Your task to perform on an android device: Search for "razer naga" on amazon, select the first entry, add it to the cart, then select checkout. Image 0: 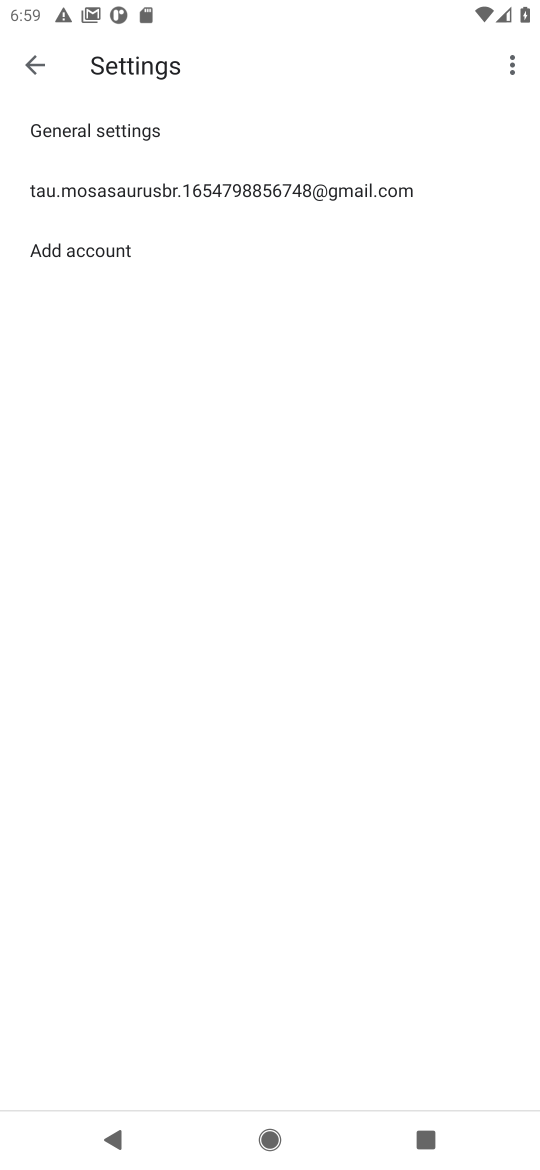
Step 0: press home button
Your task to perform on an android device: Search for "razer naga" on amazon, select the first entry, add it to the cart, then select checkout. Image 1: 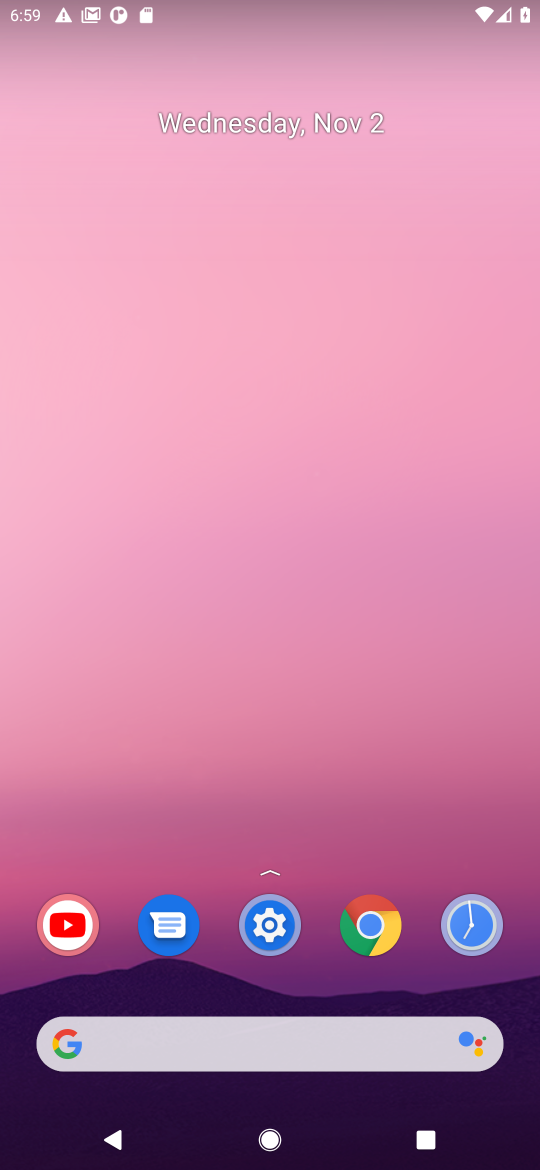
Step 1: drag from (432, 783) to (470, 31)
Your task to perform on an android device: Search for "razer naga" on amazon, select the first entry, add it to the cart, then select checkout. Image 2: 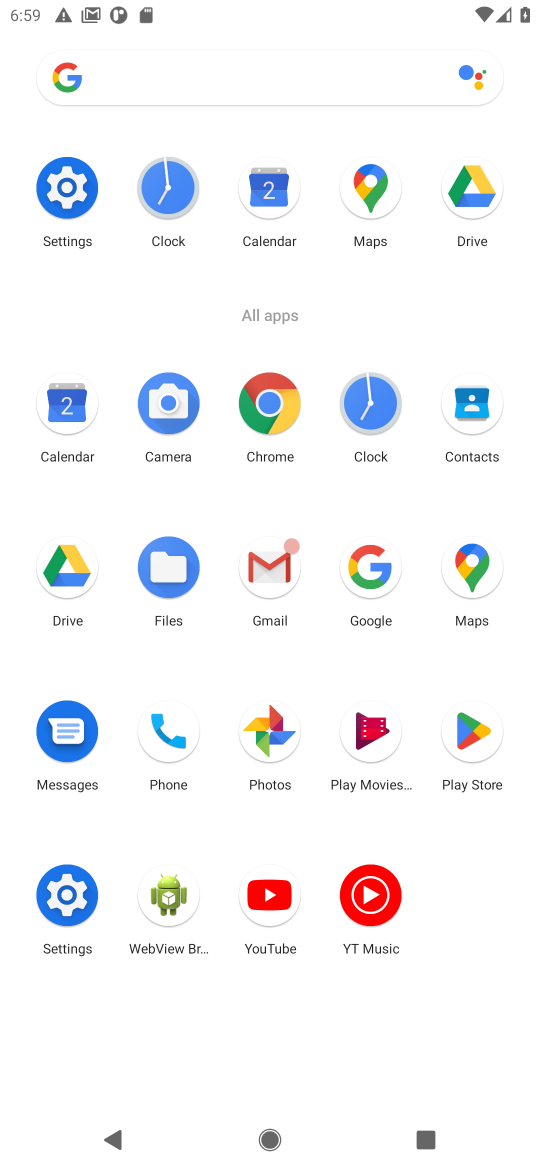
Step 2: click (371, 559)
Your task to perform on an android device: Search for "razer naga" on amazon, select the first entry, add it to the cart, then select checkout. Image 3: 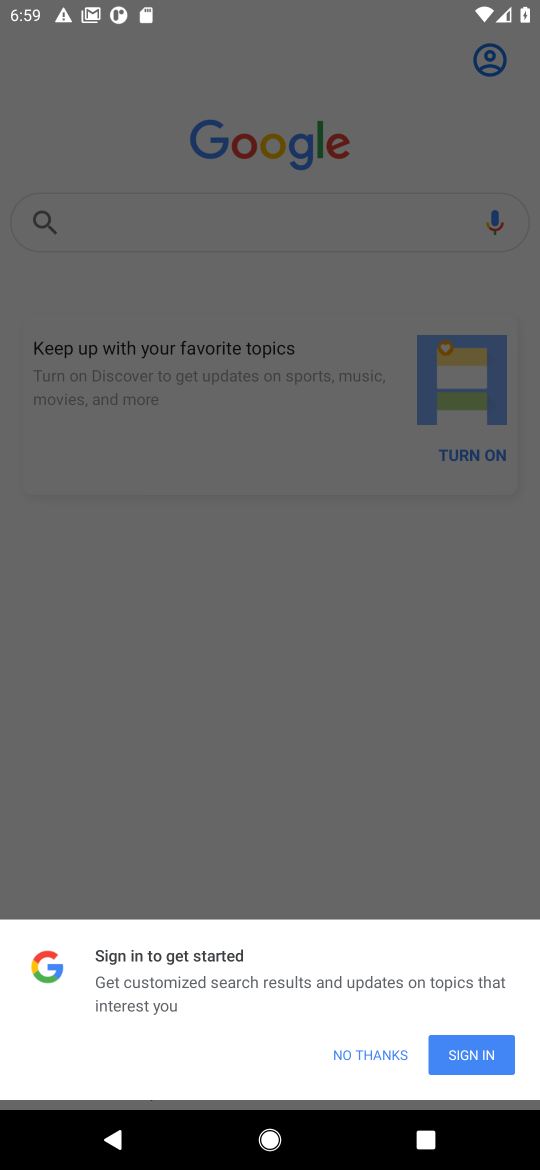
Step 3: click (341, 1053)
Your task to perform on an android device: Search for "razer naga" on amazon, select the first entry, add it to the cart, then select checkout. Image 4: 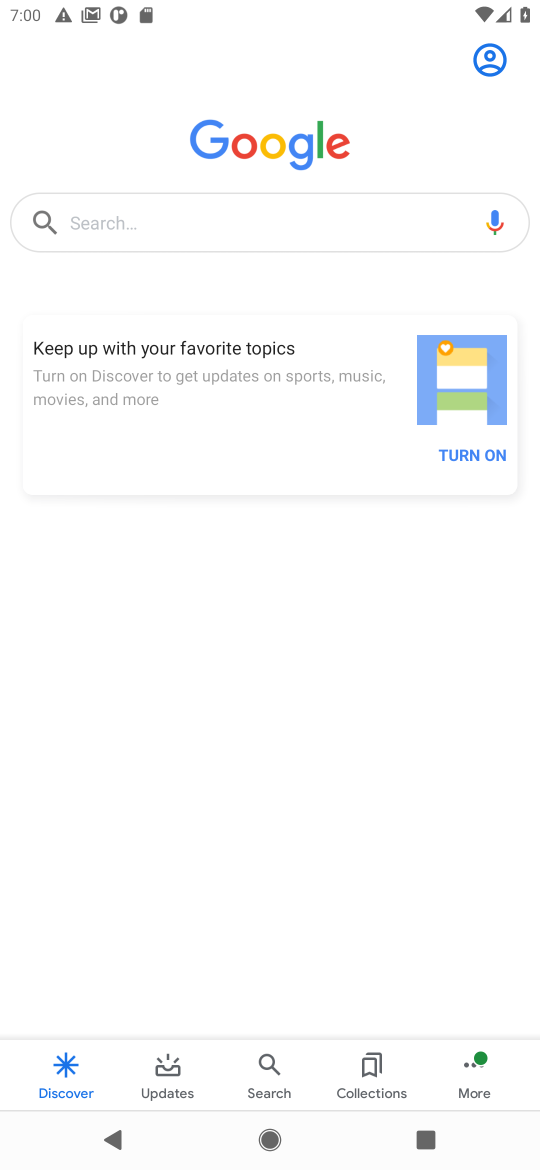
Step 4: click (135, 218)
Your task to perform on an android device: Search for "razer naga" on amazon, select the first entry, add it to the cart, then select checkout. Image 5: 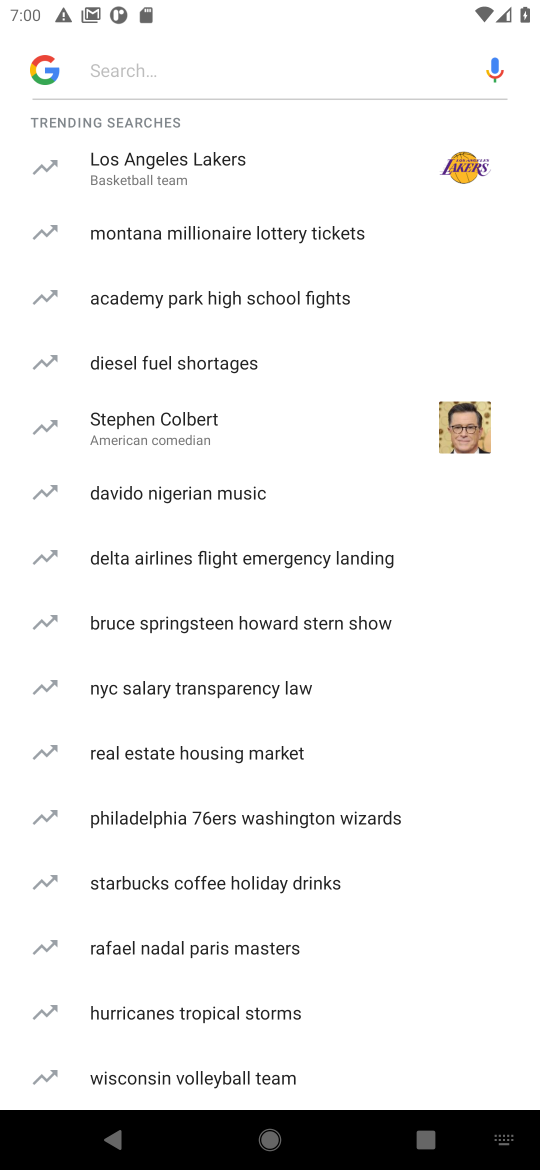
Step 5: type "amazon"
Your task to perform on an android device: Search for "razer naga" on amazon, select the first entry, add it to the cart, then select checkout. Image 6: 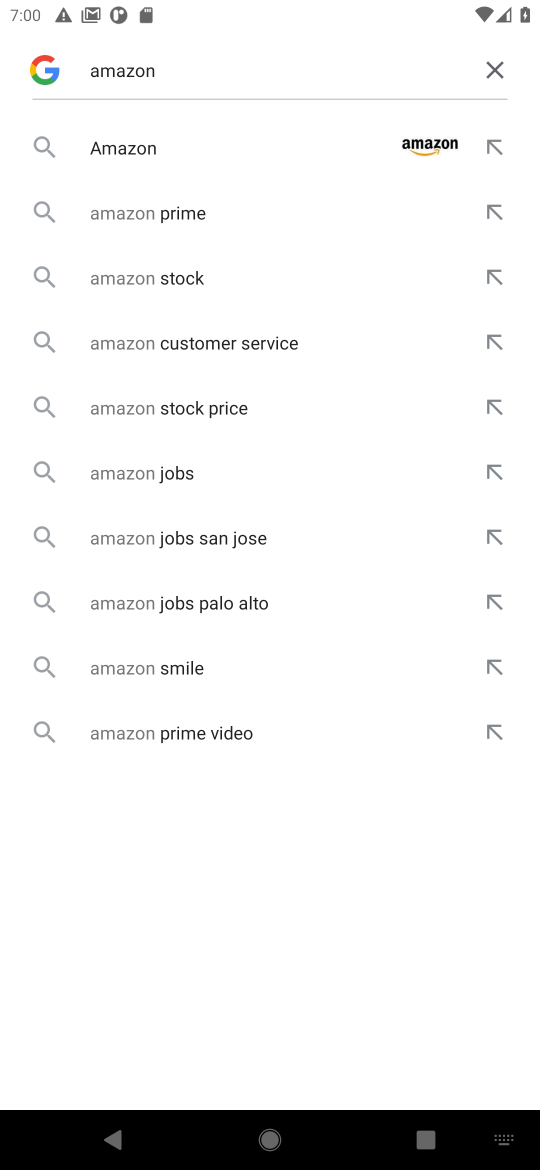
Step 6: press enter
Your task to perform on an android device: Search for "razer naga" on amazon, select the first entry, add it to the cart, then select checkout. Image 7: 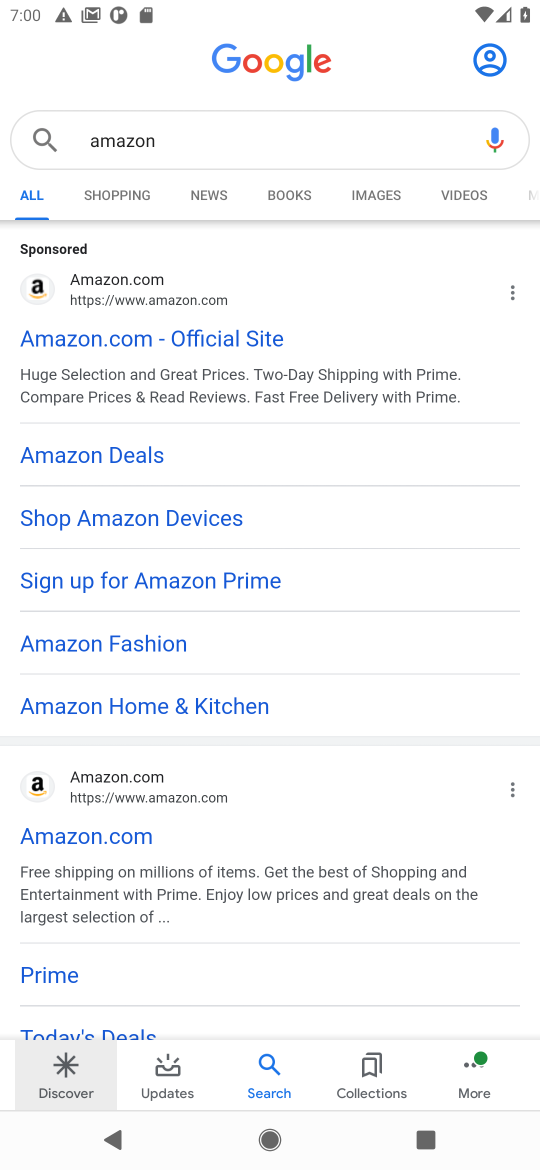
Step 7: click (168, 329)
Your task to perform on an android device: Search for "razer naga" on amazon, select the first entry, add it to the cart, then select checkout. Image 8: 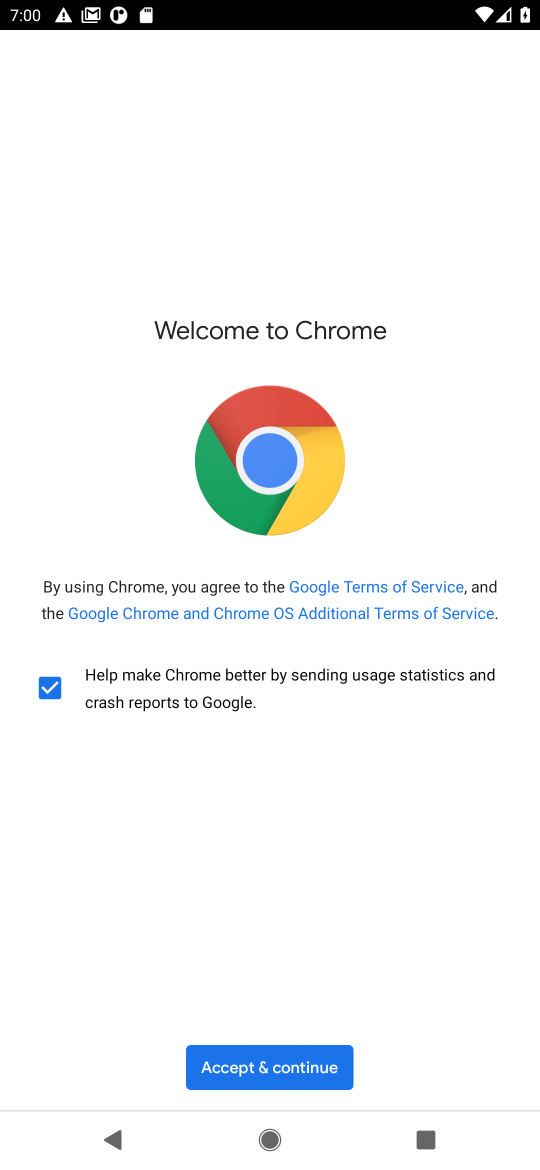
Step 8: click (255, 1067)
Your task to perform on an android device: Search for "razer naga" on amazon, select the first entry, add it to the cart, then select checkout. Image 9: 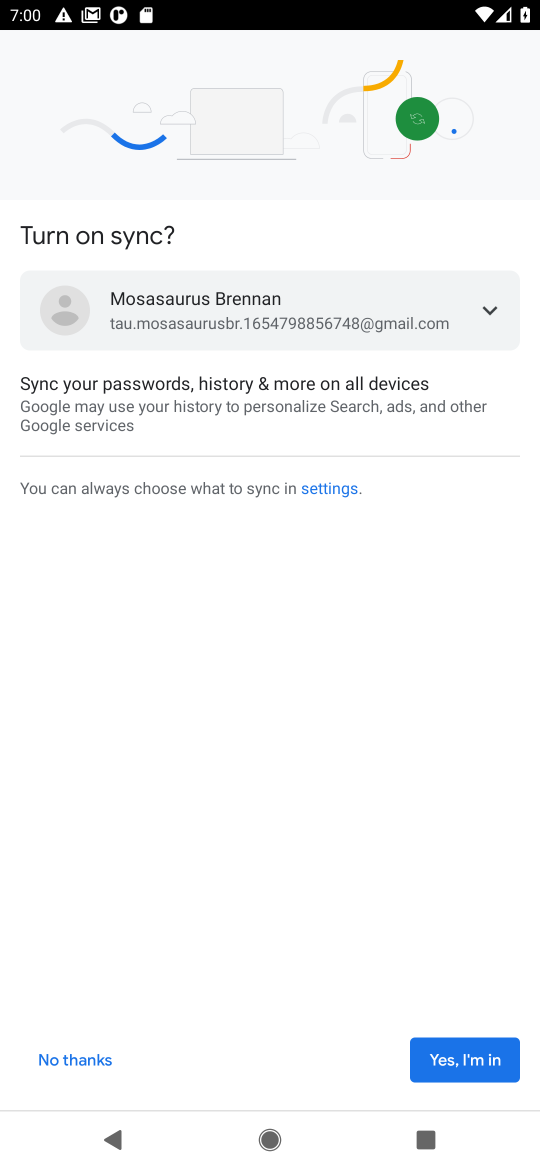
Step 9: click (472, 1068)
Your task to perform on an android device: Search for "razer naga" on amazon, select the first entry, add it to the cart, then select checkout. Image 10: 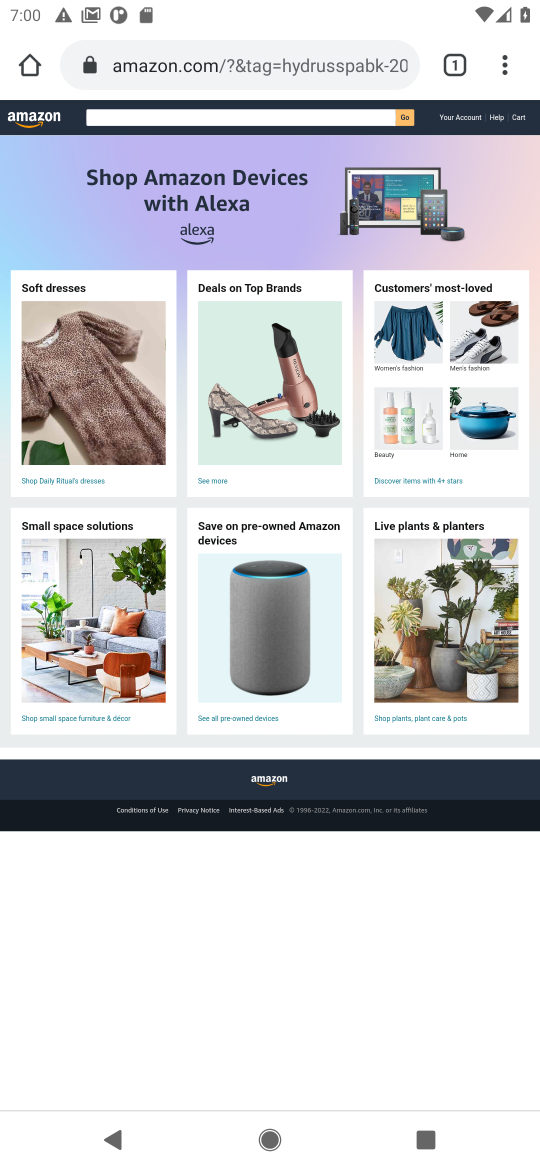
Step 10: click (203, 121)
Your task to perform on an android device: Search for "razer naga" on amazon, select the first entry, add it to the cart, then select checkout. Image 11: 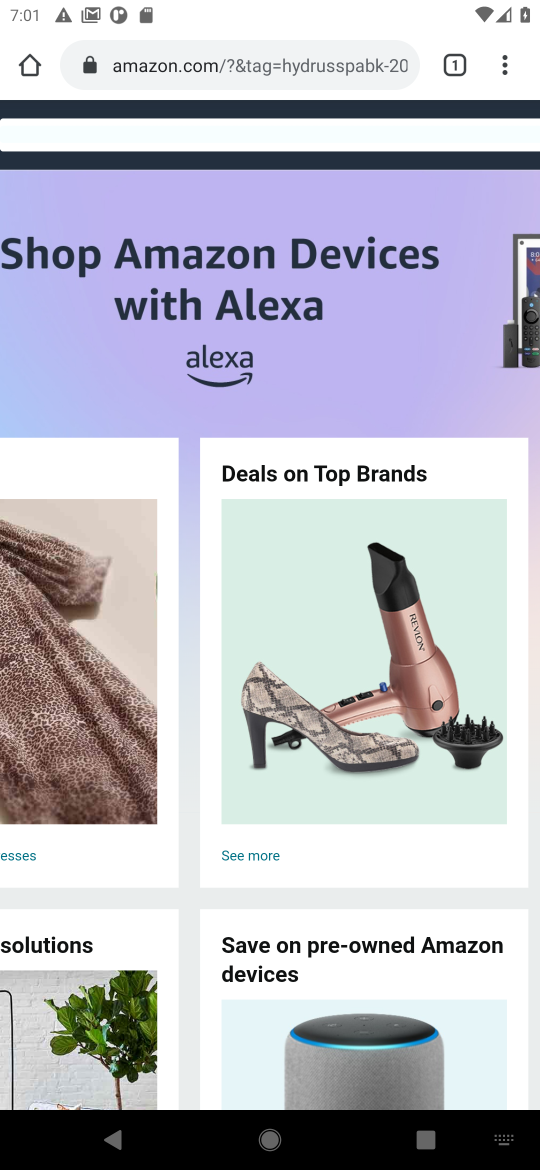
Step 11: type "razer naga"
Your task to perform on an android device: Search for "razer naga" on amazon, select the first entry, add it to the cart, then select checkout. Image 12: 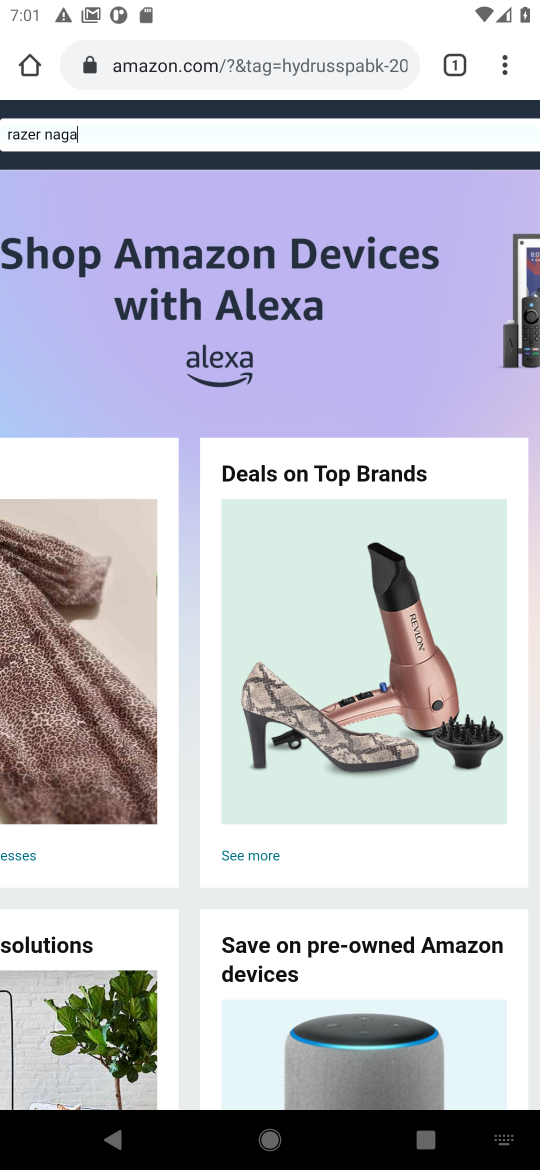
Step 12: press enter
Your task to perform on an android device: Search for "razer naga" on amazon, select the first entry, add it to the cart, then select checkout. Image 13: 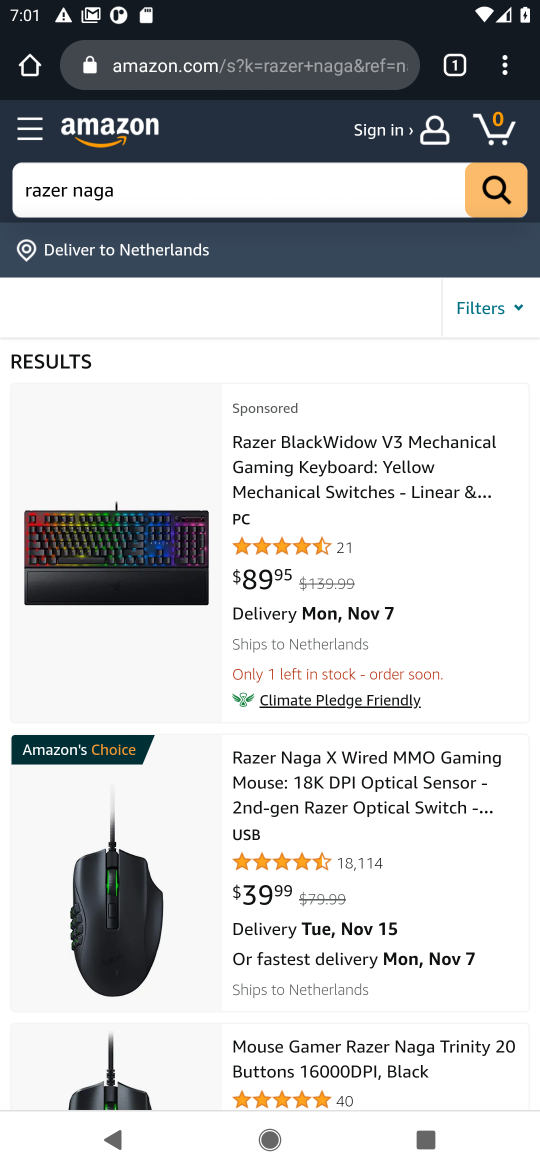
Step 13: click (340, 785)
Your task to perform on an android device: Search for "razer naga" on amazon, select the first entry, add it to the cart, then select checkout. Image 14: 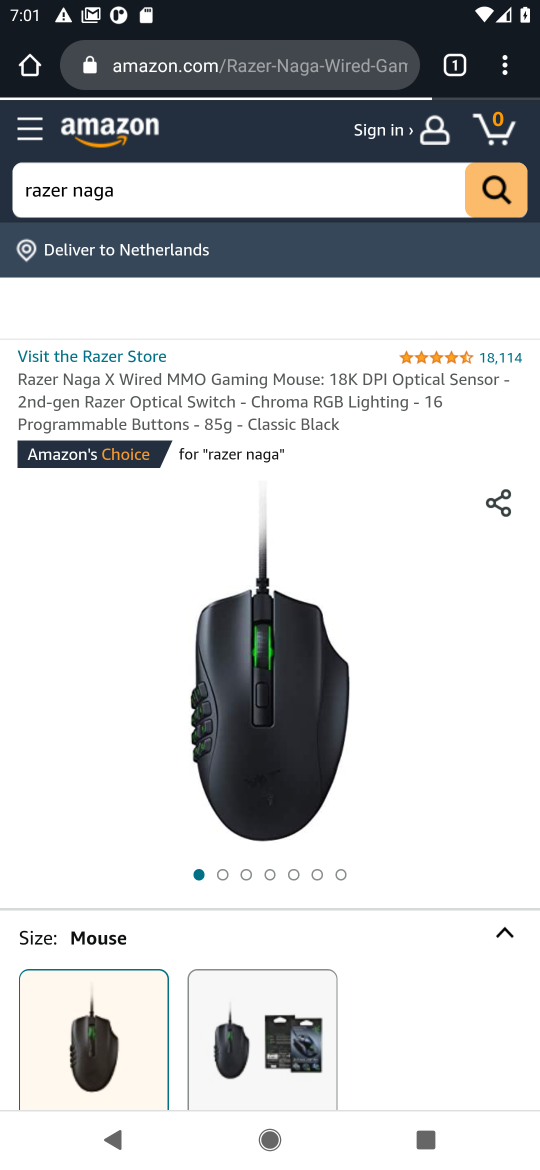
Step 14: drag from (369, 937) to (404, 410)
Your task to perform on an android device: Search for "razer naga" on amazon, select the first entry, add it to the cart, then select checkout. Image 15: 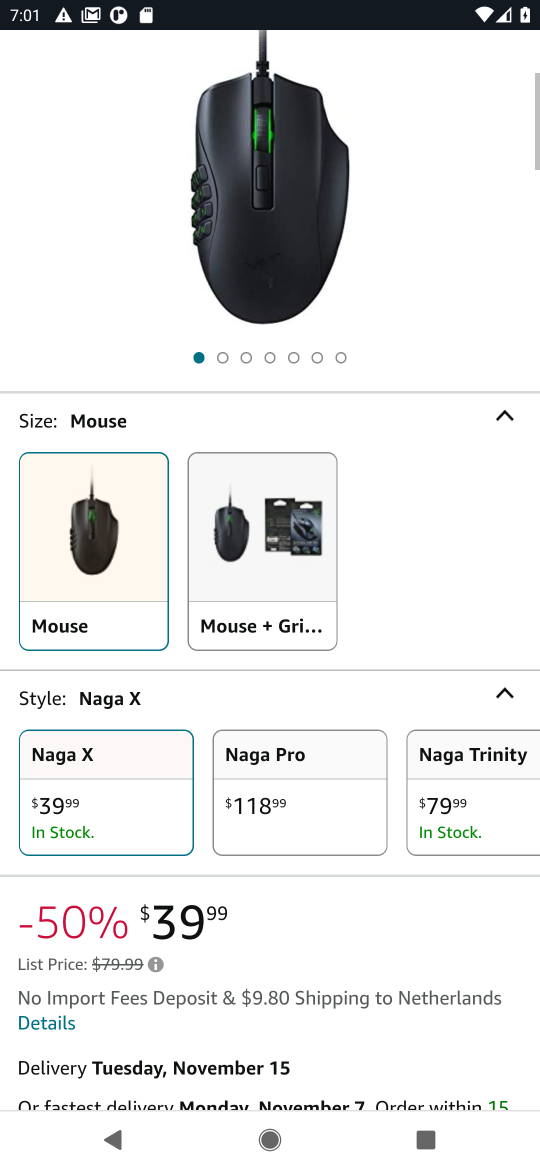
Step 15: drag from (324, 957) to (380, 381)
Your task to perform on an android device: Search for "razer naga" on amazon, select the first entry, add it to the cart, then select checkout. Image 16: 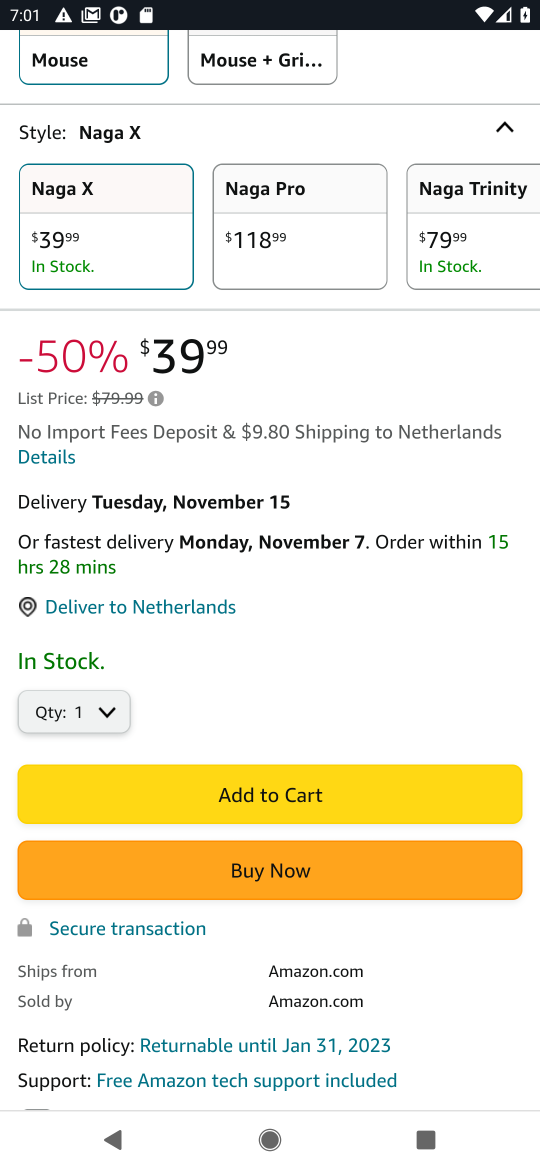
Step 16: click (241, 795)
Your task to perform on an android device: Search for "razer naga" on amazon, select the first entry, add it to the cart, then select checkout. Image 17: 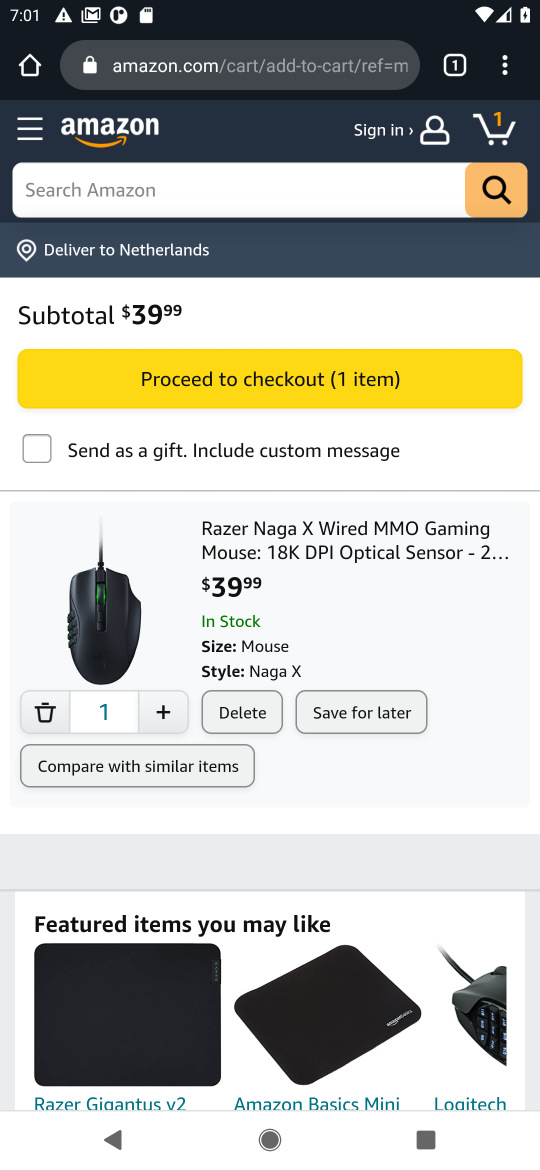
Step 17: click (264, 379)
Your task to perform on an android device: Search for "razer naga" on amazon, select the first entry, add it to the cart, then select checkout. Image 18: 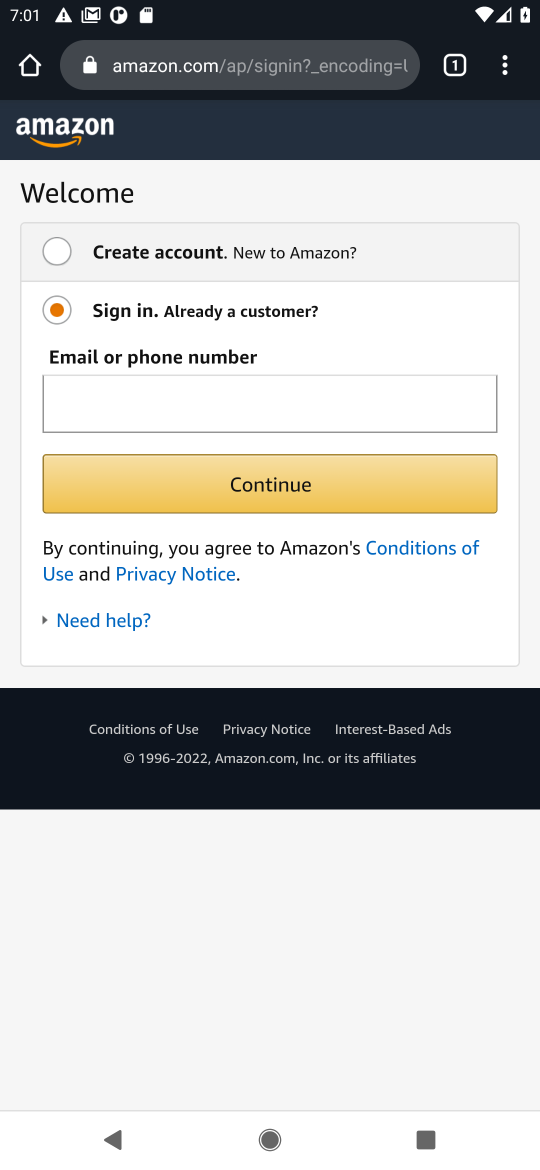
Step 18: task complete